Your task to perform on an android device: delete location history Image 0: 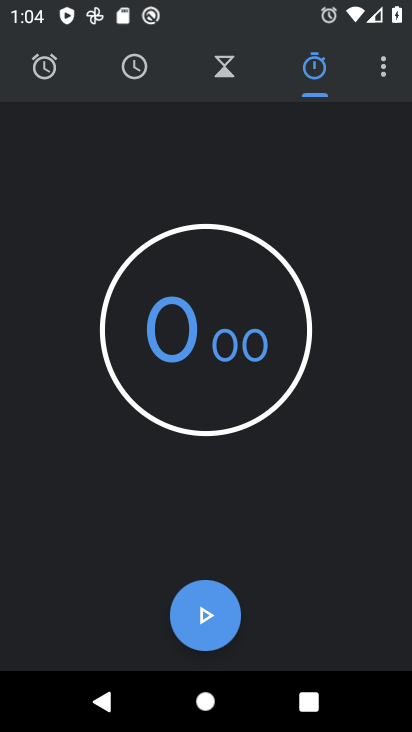
Step 0: press home button
Your task to perform on an android device: delete location history Image 1: 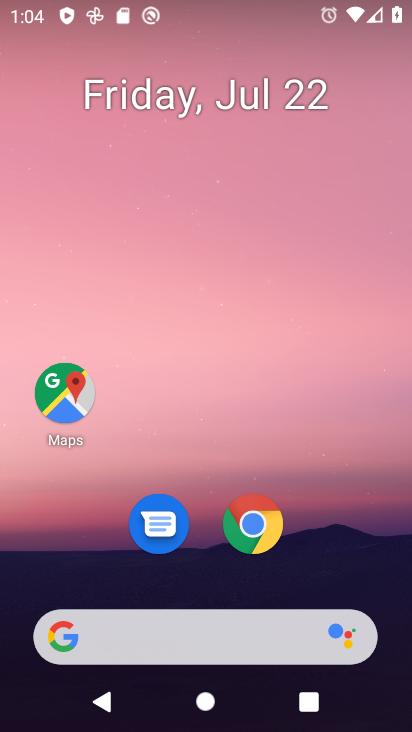
Step 1: click (66, 392)
Your task to perform on an android device: delete location history Image 2: 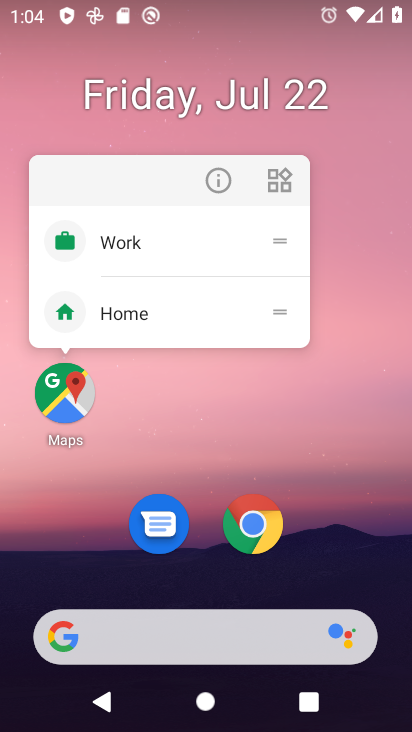
Step 2: click (66, 393)
Your task to perform on an android device: delete location history Image 3: 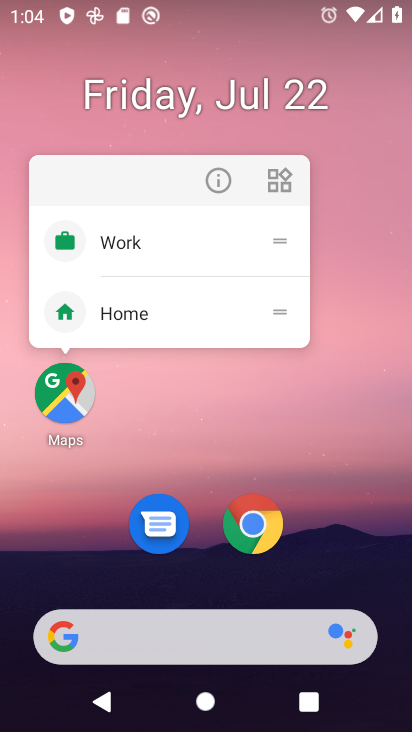
Step 3: click (61, 399)
Your task to perform on an android device: delete location history Image 4: 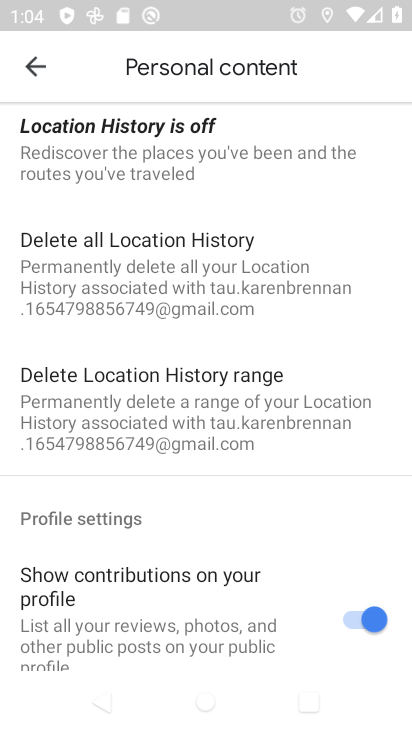
Step 4: click (157, 255)
Your task to perform on an android device: delete location history Image 5: 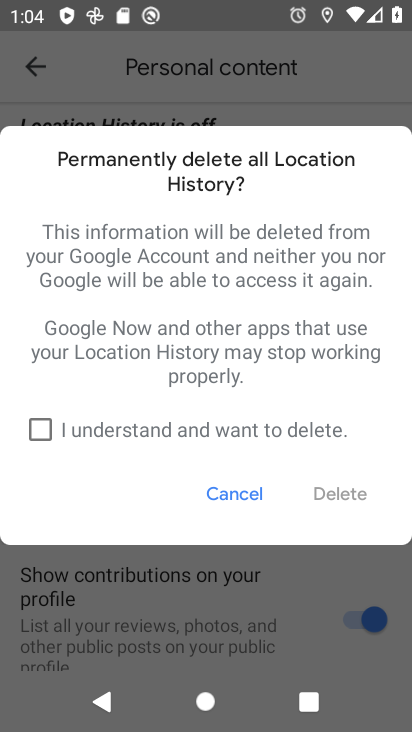
Step 5: click (39, 434)
Your task to perform on an android device: delete location history Image 6: 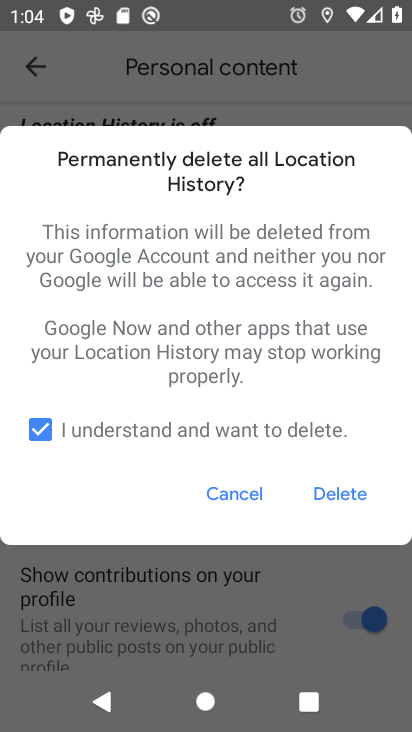
Step 6: click (340, 494)
Your task to perform on an android device: delete location history Image 7: 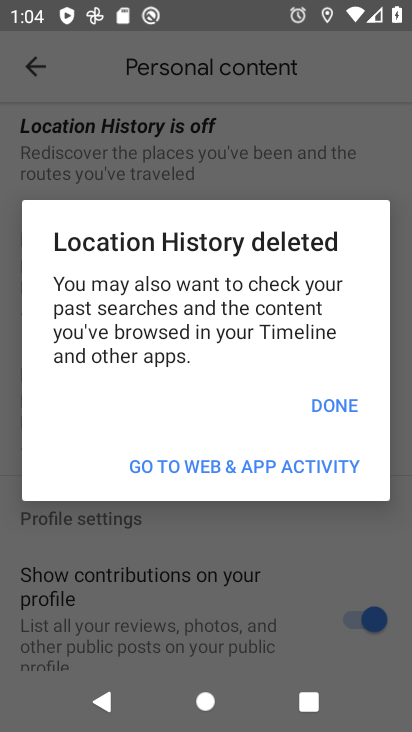
Step 7: click (358, 401)
Your task to perform on an android device: delete location history Image 8: 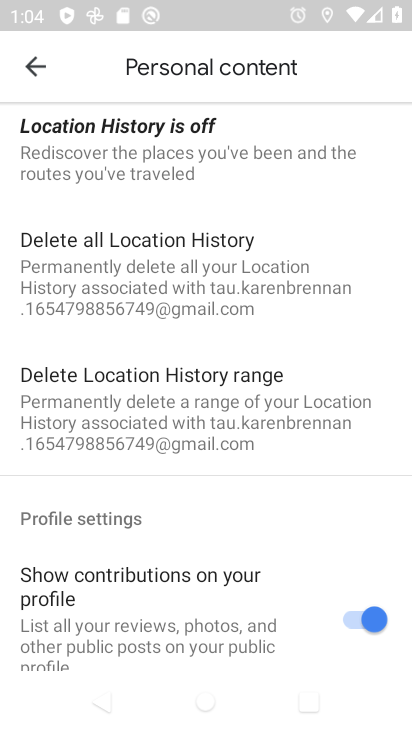
Step 8: task complete